Your task to perform on an android device: Show me recent news Image 0: 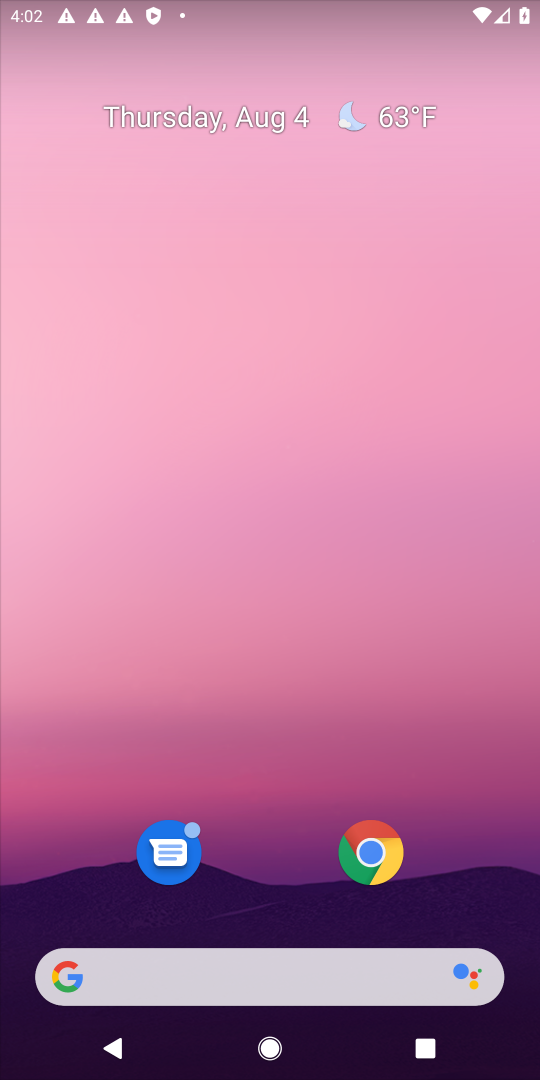
Step 0: drag from (271, 892) to (262, 179)
Your task to perform on an android device: Show me recent news Image 1: 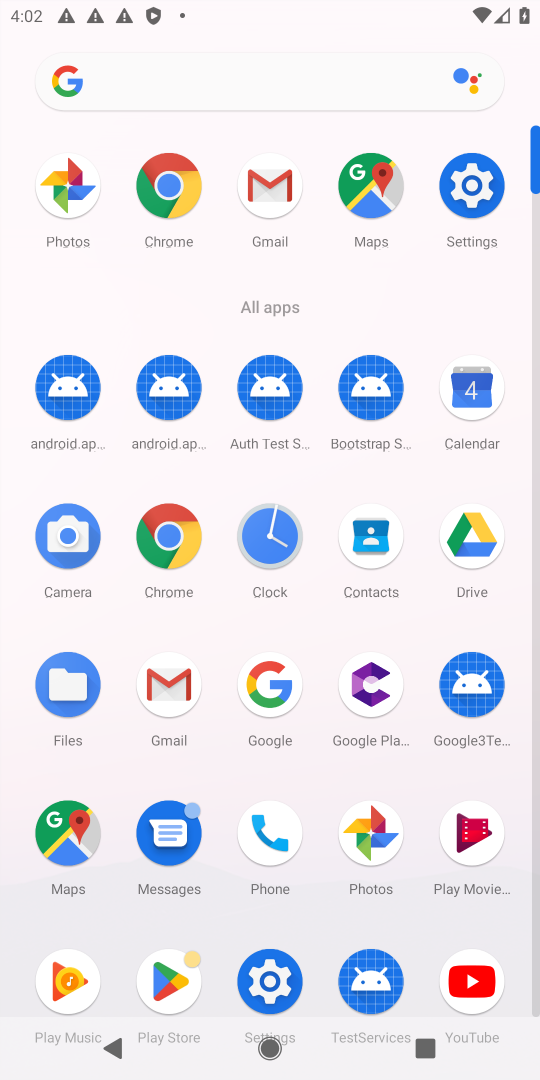
Step 1: task complete